Your task to perform on an android device: Open Wikipedia Image 0: 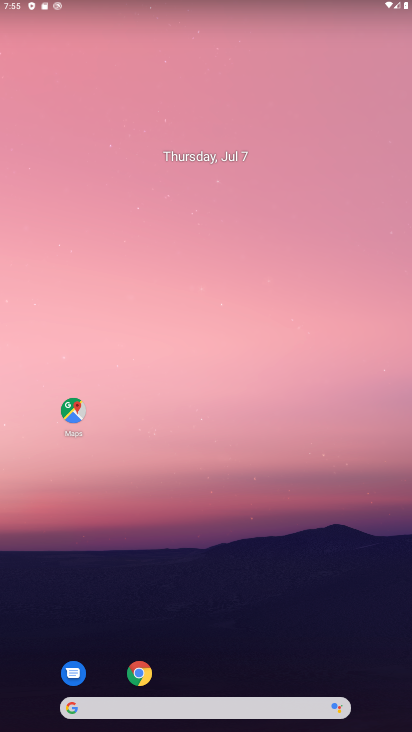
Step 0: drag from (219, 677) to (164, 77)
Your task to perform on an android device: Open Wikipedia Image 1: 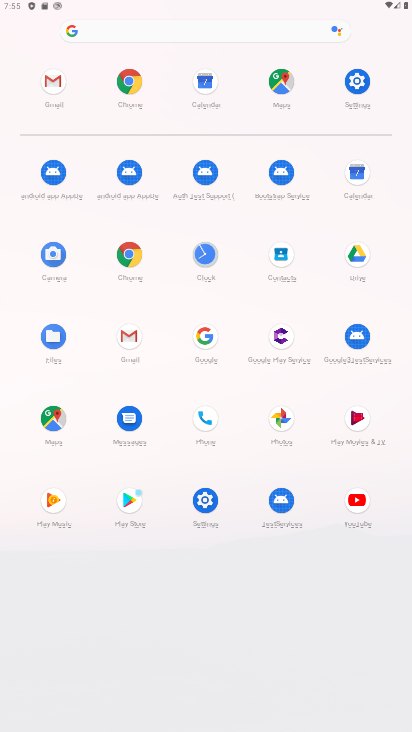
Step 1: click (126, 267)
Your task to perform on an android device: Open Wikipedia Image 2: 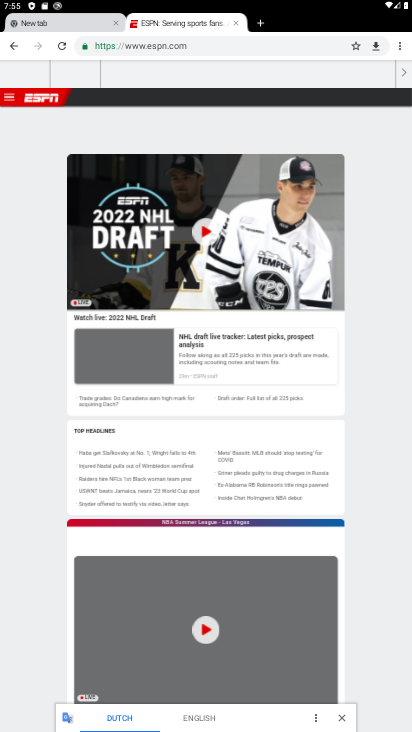
Step 2: click (253, 23)
Your task to perform on an android device: Open Wikipedia Image 3: 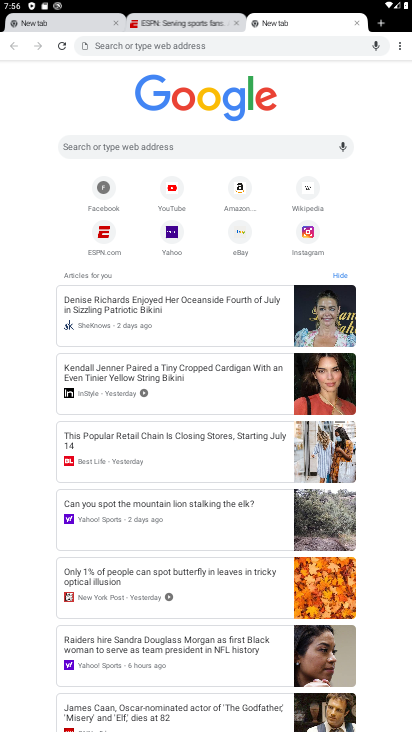
Step 3: click (185, 144)
Your task to perform on an android device: Open Wikipedia Image 4: 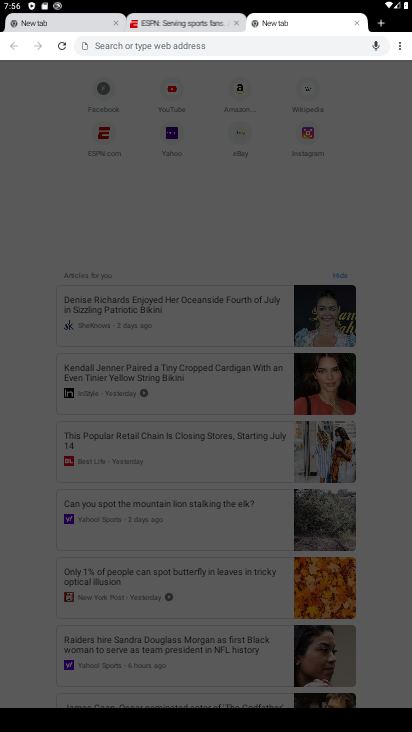
Step 4: type "wikipedia"
Your task to perform on an android device: Open Wikipedia Image 5: 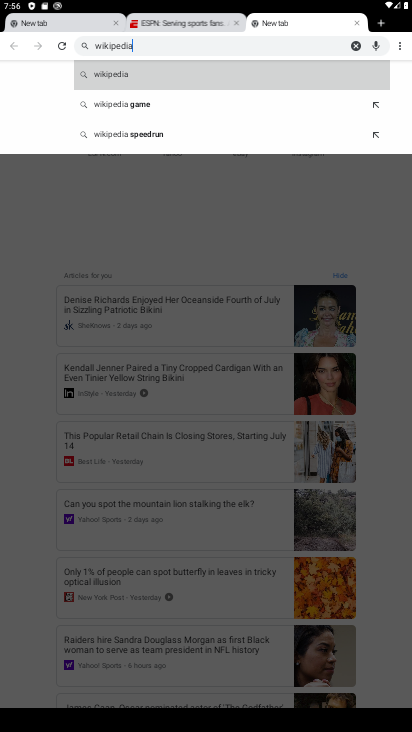
Step 5: type ""
Your task to perform on an android device: Open Wikipedia Image 6: 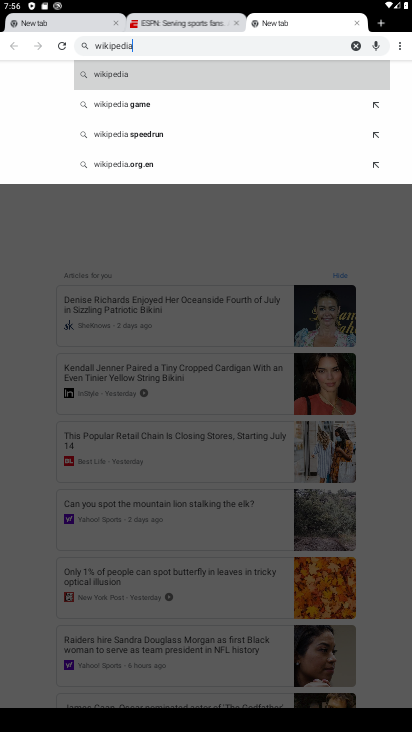
Step 6: click (102, 77)
Your task to perform on an android device: Open Wikipedia Image 7: 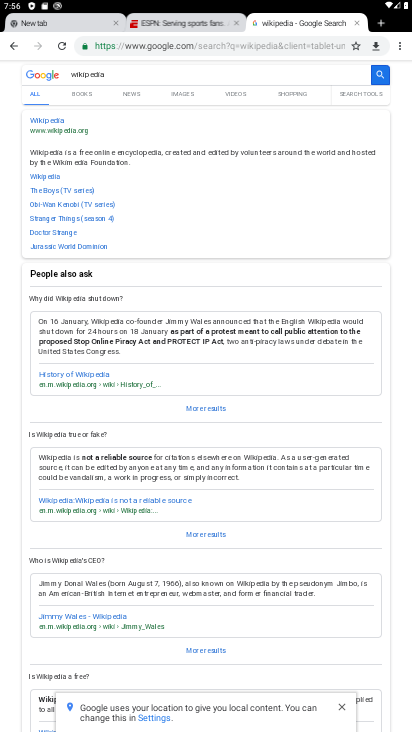
Step 7: click (38, 122)
Your task to perform on an android device: Open Wikipedia Image 8: 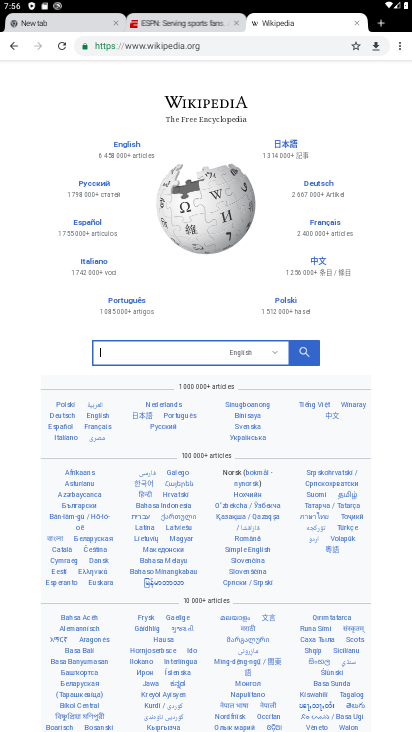
Step 8: task complete